Your task to perform on an android device: Open calendar and show me the second week of next month Image 0: 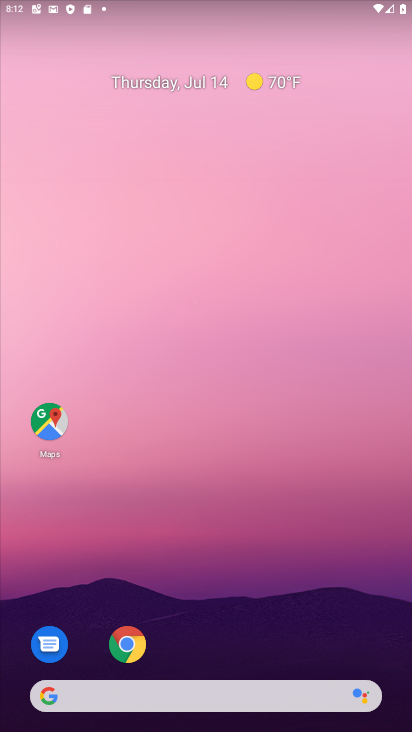
Step 0: drag from (287, 627) to (314, 20)
Your task to perform on an android device: Open calendar and show me the second week of next month Image 1: 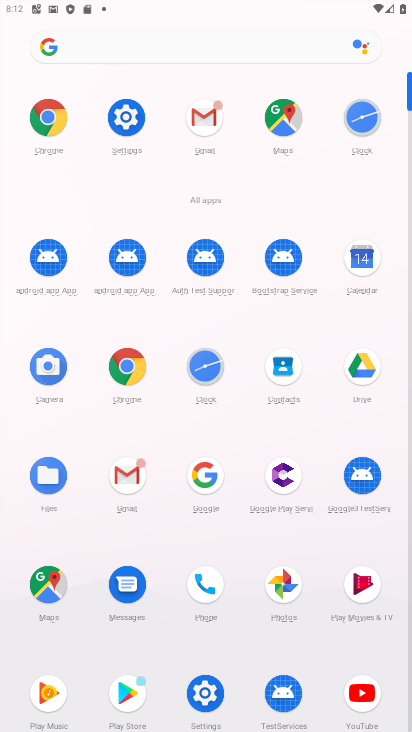
Step 1: click (371, 247)
Your task to perform on an android device: Open calendar and show me the second week of next month Image 2: 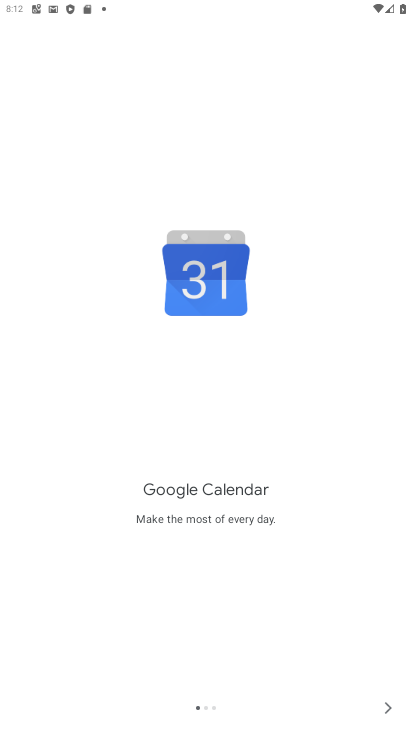
Step 2: click (388, 706)
Your task to perform on an android device: Open calendar and show me the second week of next month Image 3: 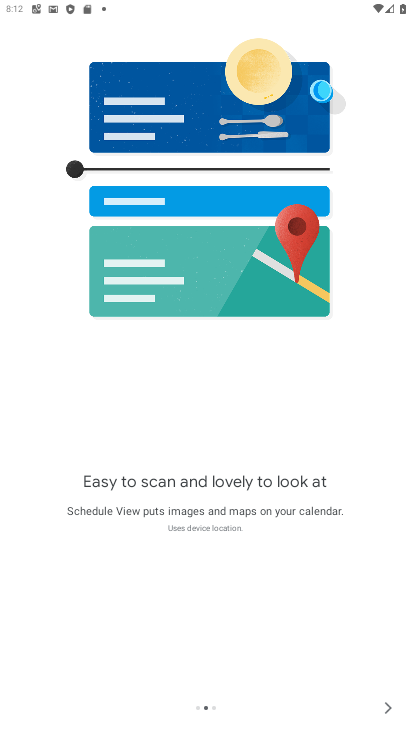
Step 3: click (388, 706)
Your task to perform on an android device: Open calendar and show me the second week of next month Image 4: 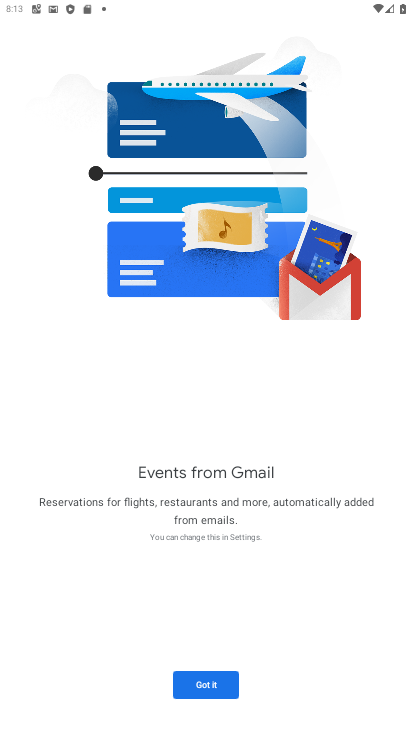
Step 4: click (208, 674)
Your task to perform on an android device: Open calendar and show me the second week of next month Image 5: 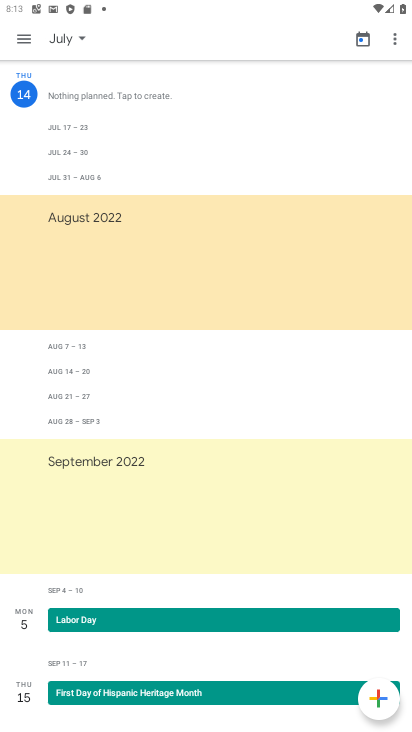
Step 5: click (12, 35)
Your task to perform on an android device: Open calendar and show me the second week of next month Image 6: 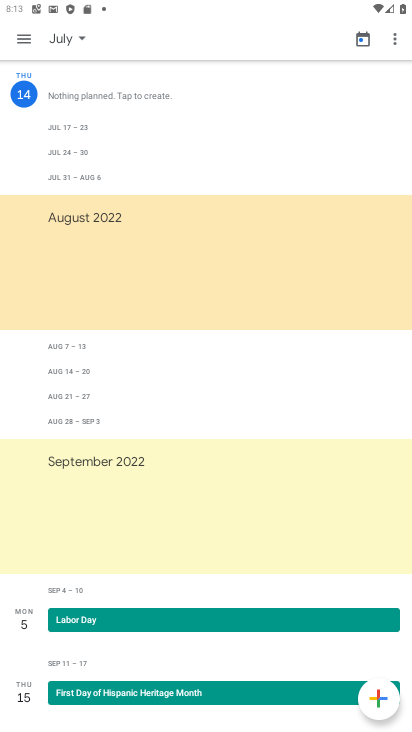
Step 6: click (27, 33)
Your task to perform on an android device: Open calendar and show me the second week of next month Image 7: 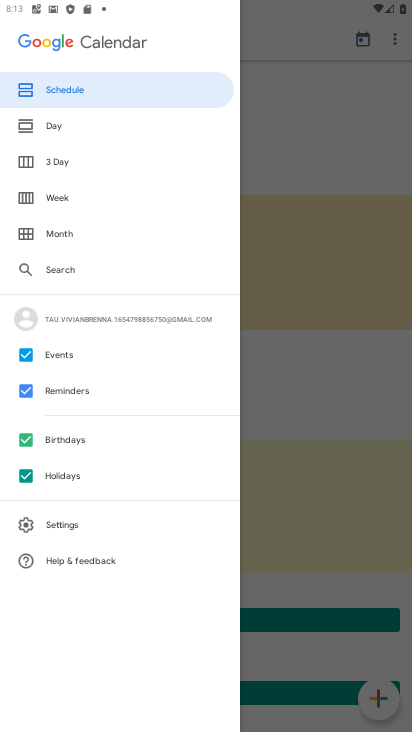
Step 7: click (55, 242)
Your task to perform on an android device: Open calendar and show me the second week of next month Image 8: 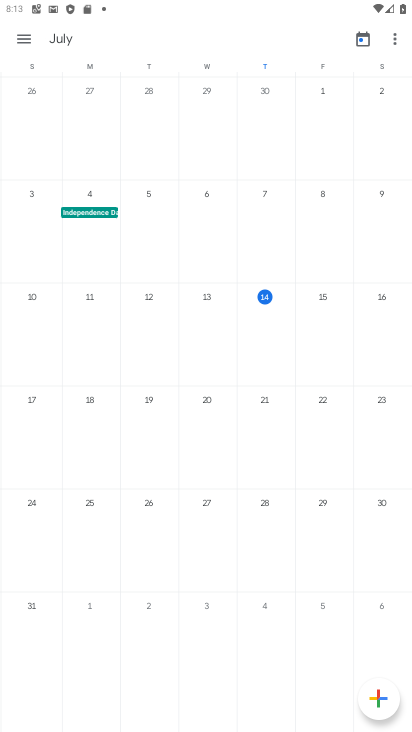
Step 8: task complete